Your task to perform on an android device: Go to Android settings Image 0: 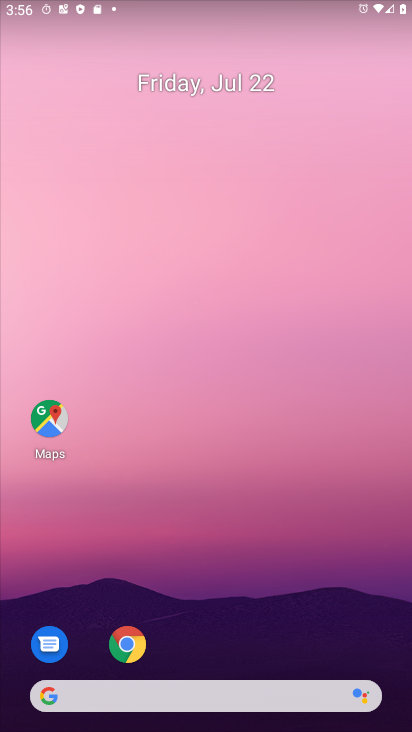
Step 0: press home button
Your task to perform on an android device: Go to Android settings Image 1: 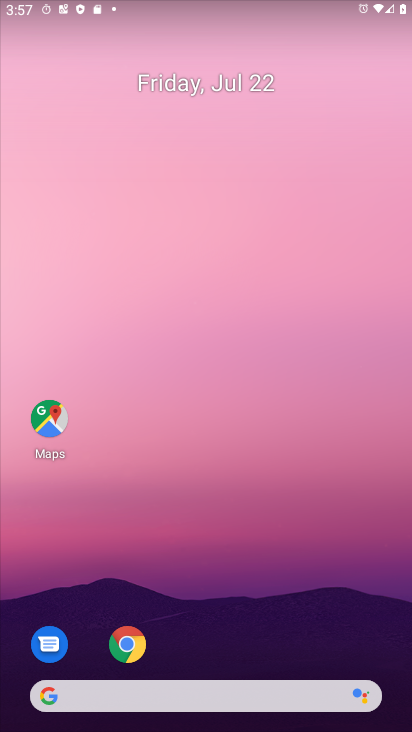
Step 1: press home button
Your task to perform on an android device: Go to Android settings Image 2: 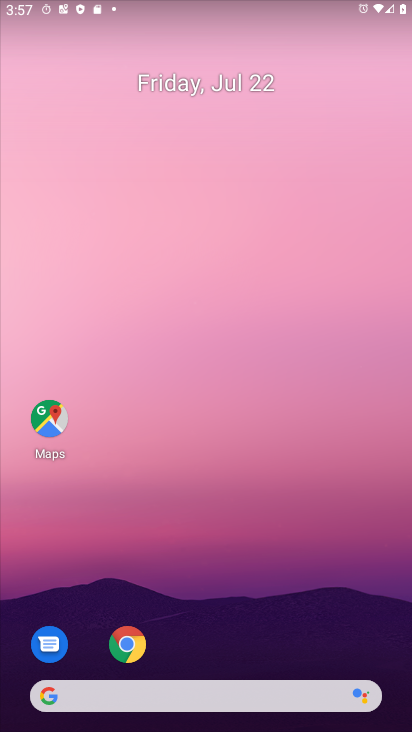
Step 2: drag from (285, 609) to (101, 2)
Your task to perform on an android device: Go to Android settings Image 3: 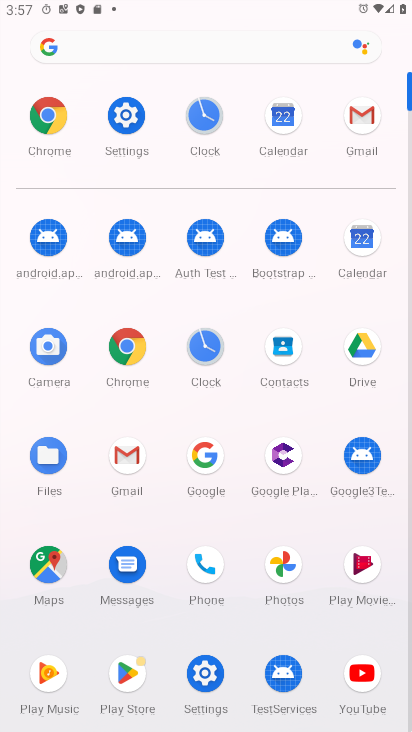
Step 3: click (117, 111)
Your task to perform on an android device: Go to Android settings Image 4: 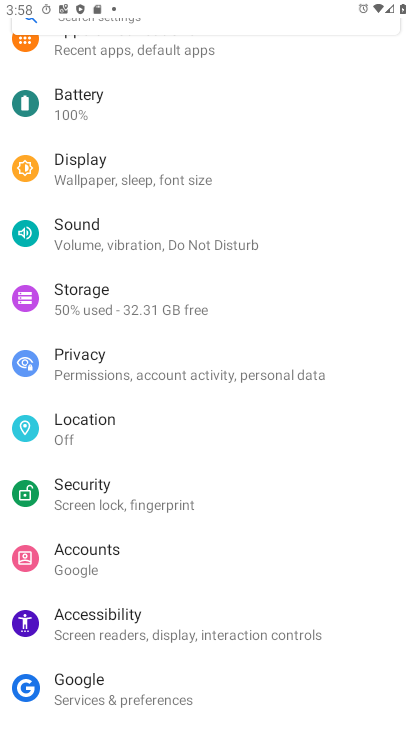
Step 4: task complete